Your task to perform on an android device: Clear all items from cart on ebay. Add dell xps to the cart on ebay Image 0: 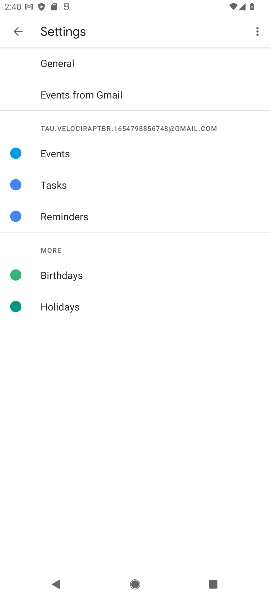
Step 0: press home button
Your task to perform on an android device: Clear all items from cart on ebay. Add dell xps to the cart on ebay Image 1: 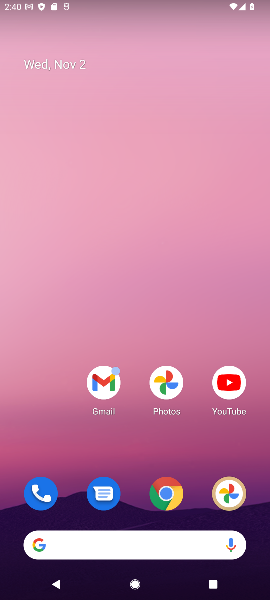
Step 1: click (163, 490)
Your task to perform on an android device: Clear all items from cart on ebay. Add dell xps to the cart on ebay Image 2: 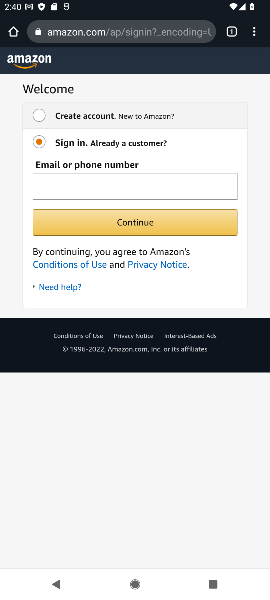
Step 2: click (145, 35)
Your task to perform on an android device: Clear all items from cart on ebay. Add dell xps to the cart on ebay Image 3: 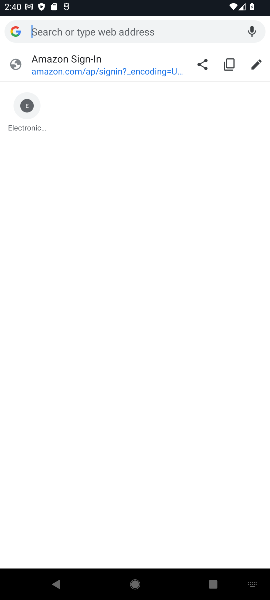
Step 3: type "ebay"
Your task to perform on an android device: Clear all items from cart on ebay. Add dell xps to the cart on ebay Image 4: 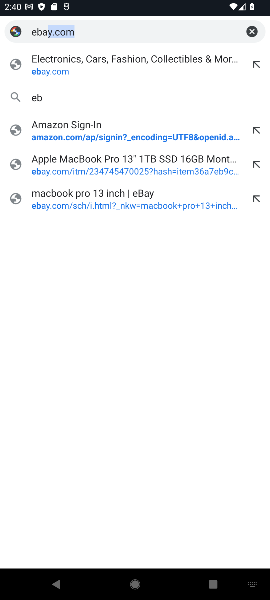
Step 4: press enter
Your task to perform on an android device: Clear all items from cart on ebay. Add dell xps to the cart on ebay Image 5: 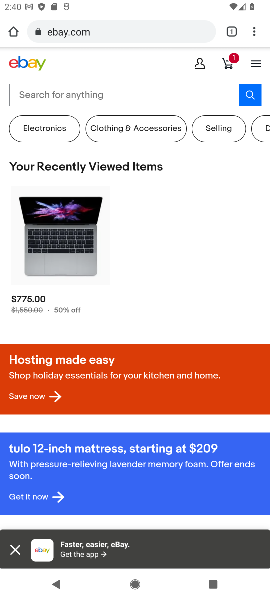
Step 5: click (231, 62)
Your task to perform on an android device: Clear all items from cart on ebay. Add dell xps to the cart on ebay Image 6: 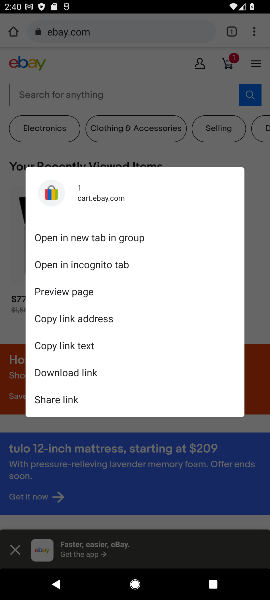
Step 6: click (231, 62)
Your task to perform on an android device: Clear all items from cart on ebay. Add dell xps to the cart on ebay Image 7: 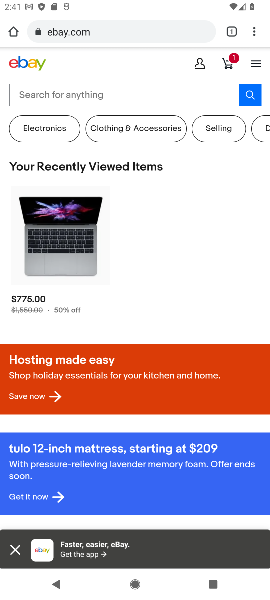
Step 7: click (231, 62)
Your task to perform on an android device: Clear all items from cart on ebay. Add dell xps to the cart on ebay Image 8: 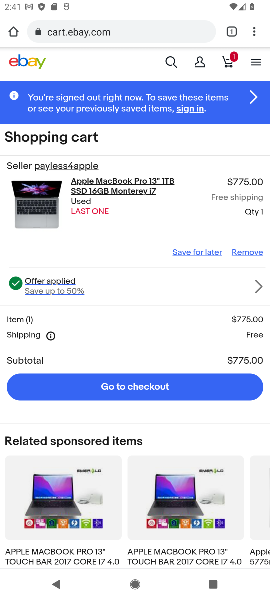
Step 8: click (245, 248)
Your task to perform on an android device: Clear all items from cart on ebay. Add dell xps to the cart on ebay Image 9: 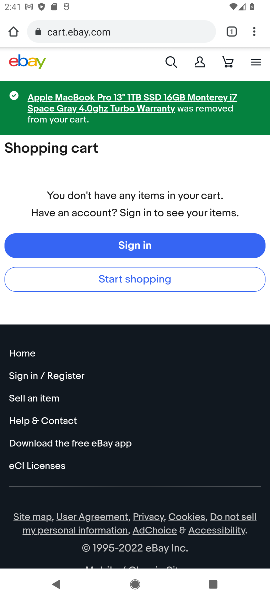
Step 9: click (168, 57)
Your task to perform on an android device: Clear all items from cart on ebay. Add dell xps to the cart on ebay Image 10: 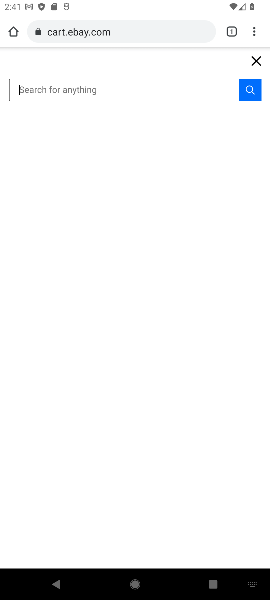
Step 10: click (178, 89)
Your task to perform on an android device: Clear all items from cart on ebay. Add dell xps to the cart on ebay Image 11: 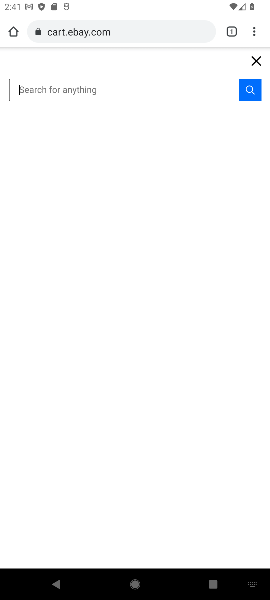
Step 11: type "dell xps"
Your task to perform on an android device: Clear all items from cart on ebay. Add dell xps to the cart on ebay Image 12: 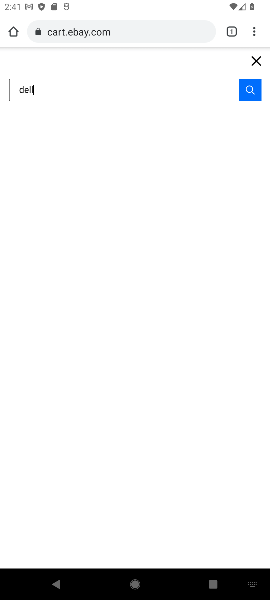
Step 12: press enter
Your task to perform on an android device: Clear all items from cart on ebay. Add dell xps to the cart on ebay Image 13: 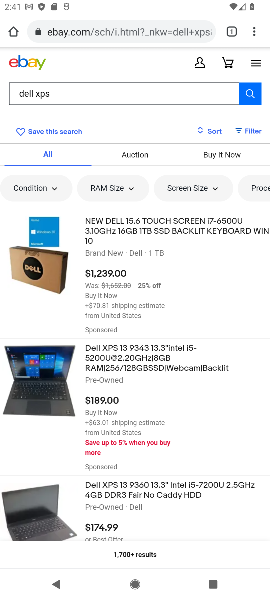
Step 13: click (34, 378)
Your task to perform on an android device: Clear all items from cart on ebay. Add dell xps to the cart on ebay Image 14: 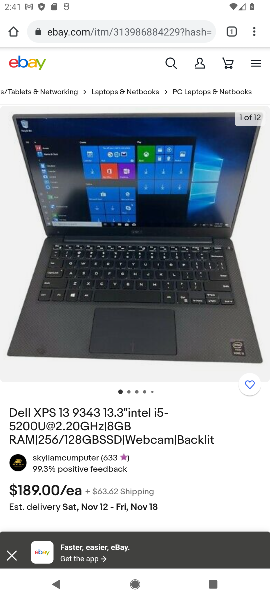
Step 14: drag from (180, 458) to (152, 237)
Your task to perform on an android device: Clear all items from cart on ebay. Add dell xps to the cart on ebay Image 15: 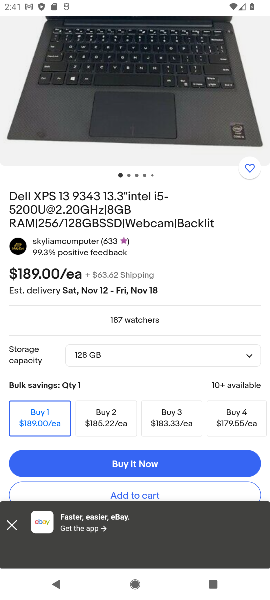
Step 15: drag from (149, 377) to (172, 185)
Your task to perform on an android device: Clear all items from cart on ebay. Add dell xps to the cart on ebay Image 16: 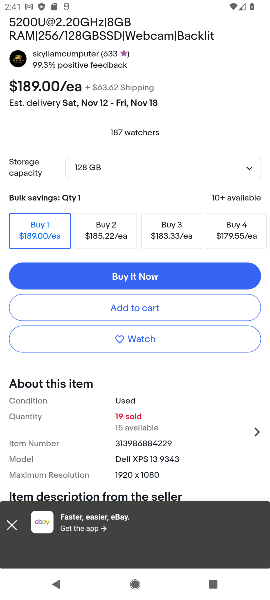
Step 16: click (164, 304)
Your task to perform on an android device: Clear all items from cart on ebay. Add dell xps to the cart on ebay Image 17: 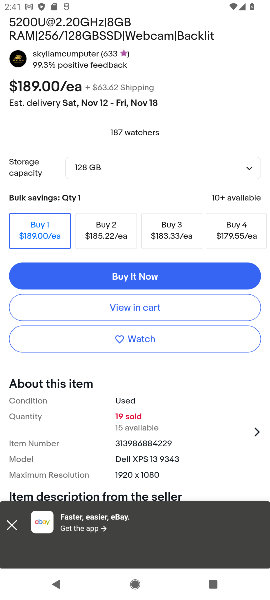
Step 17: click (164, 304)
Your task to perform on an android device: Clear all items from cart on ebay. Add dell xps to the cart on ebay Image 18: 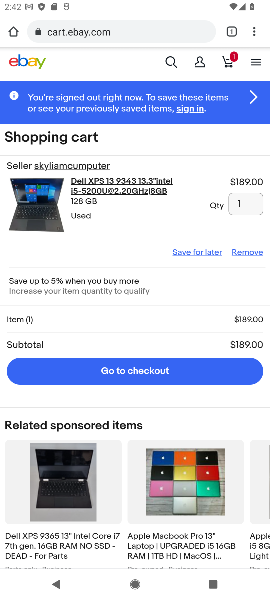
Step 18: task complete